Your task to perform on an android device: turn notification dots on Image 0: 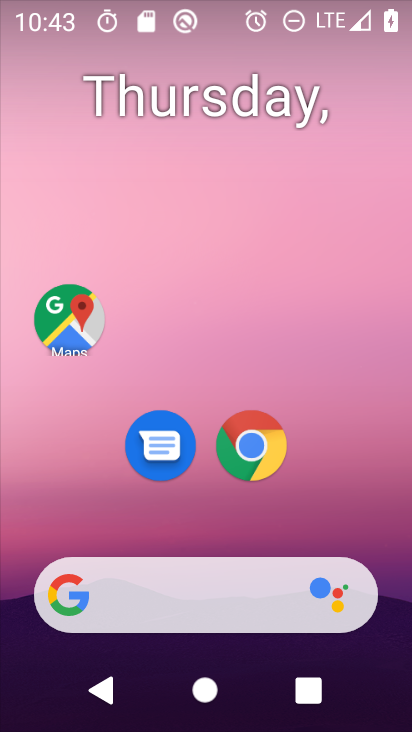
Step 0: drag from (226, 525) to (225, 188)
Your task to perform on an android device: turn notification dots on Image 1: 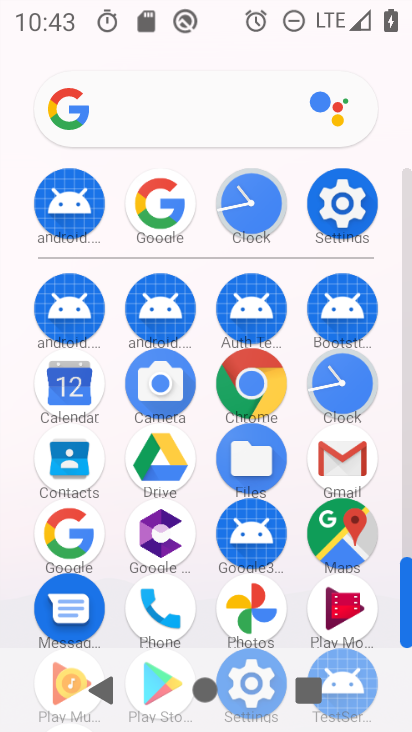
Step 1: click (341, 217)
Your task to perform on an android device: turn notification dots on Image 2: 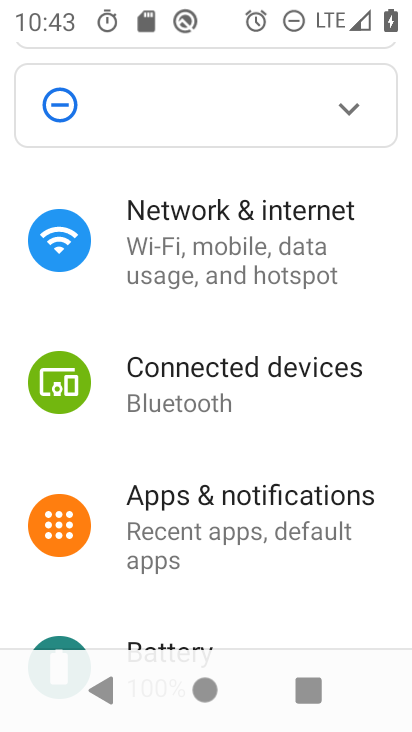
Step 2: click (246, 532)
Your task to perform on an android device: turn notification dots on Image 3: 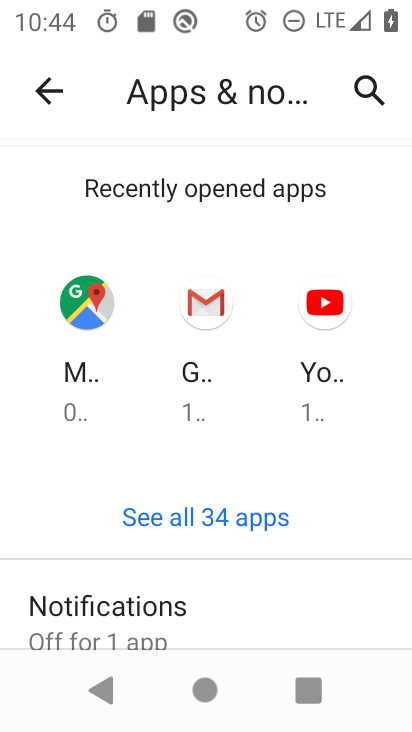
Step 3: drag from (224, 562) to (276, 157)
Your task to perform on an android device: turn notification dots on Image 4: 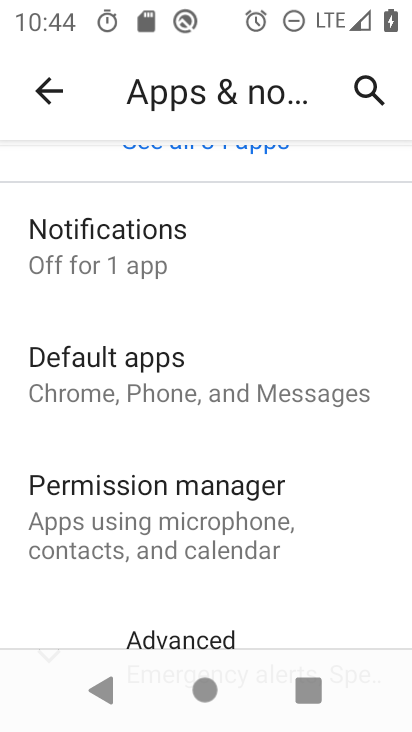
Step 4: click (136, 214)
Your task to perform on an android device: turn notification dots on Image 5: 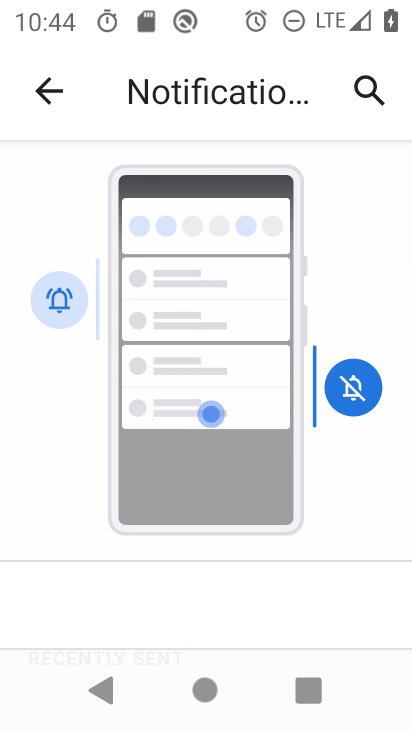
Step 5: drag from (220, 523) to (263, 233)
Your task to perform on an android device: turn notification dots on Image 6: 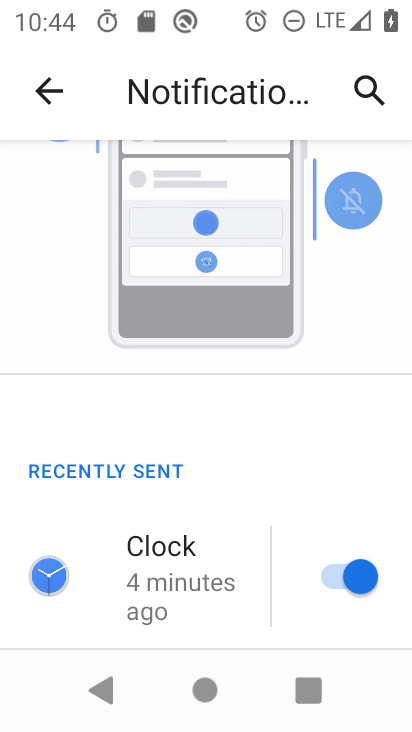
Step 6: drag from (247, 625) to (248, 242)
Your task to perform on an android device: turn notification dots on Image 7: 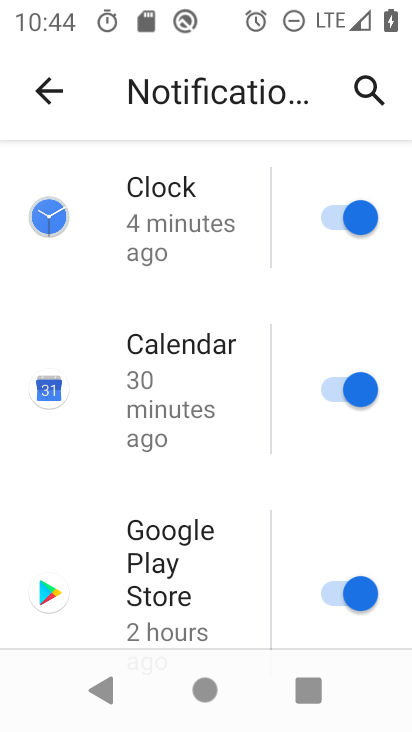
Step 7: drag from (211, 614) to (254, 202)
Your task to perform on an android device: turn notification dots on Image 8: 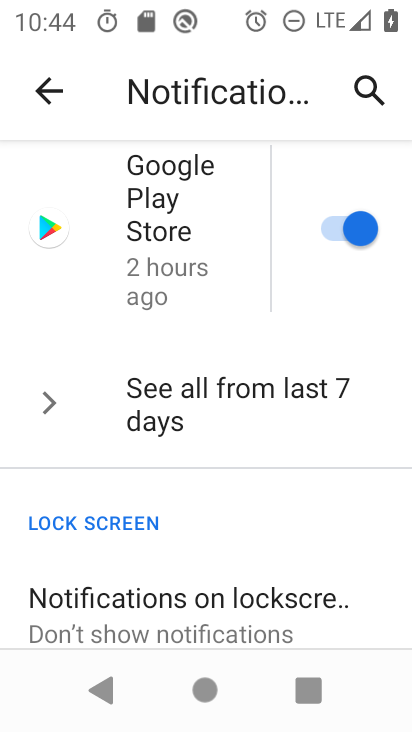
Step 8: drag from (178, 604) to (246, 239)
Your task to perform on an android device: turn notification dots on Image 9: 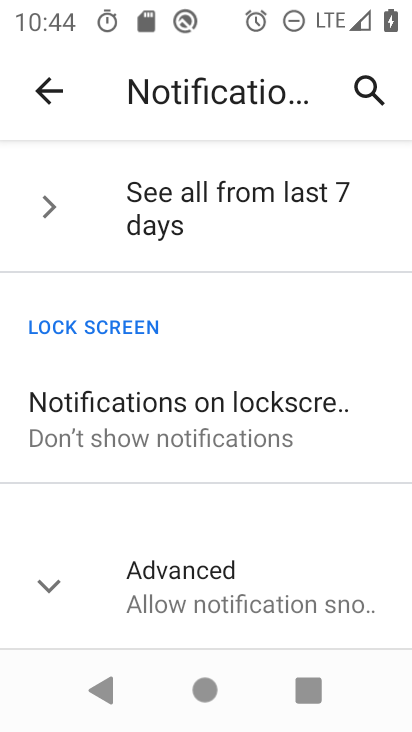
Step 9: click (176, 629)
Your task to perform on an android device: turn notification dots on Image 10: 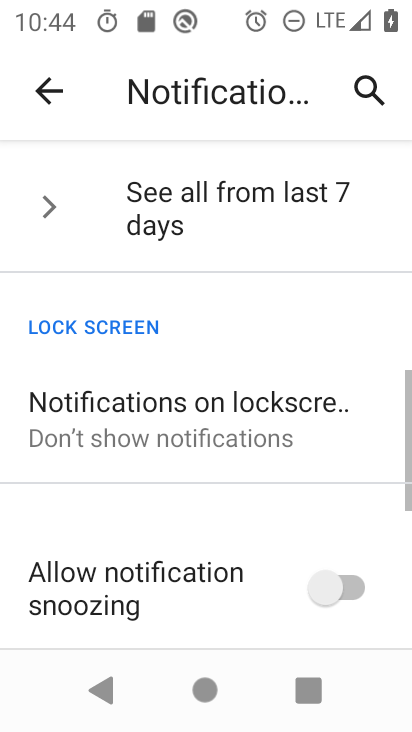
Step 10: drag from (203, 611) to (295, 135)
Your task to perform on an android device: turn notification dots on Image 11: 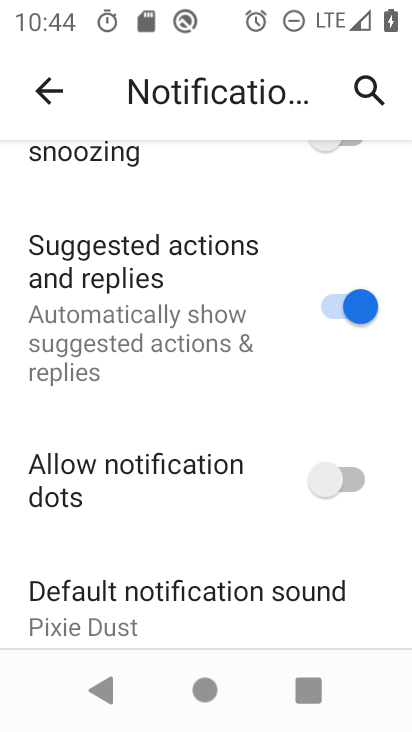
Step 11: click (293, 480)
Your task to perform on an android device: turn notification dots on Image 12: 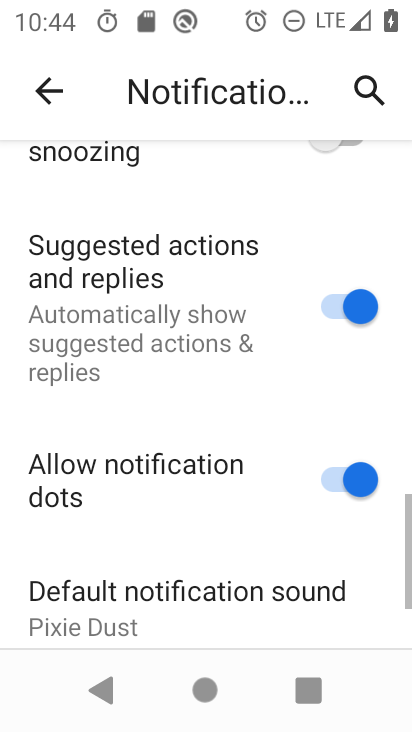
Step 12: task complete